Your task to perform on an android device: Look up the best rated bike on Walmart Image 0: 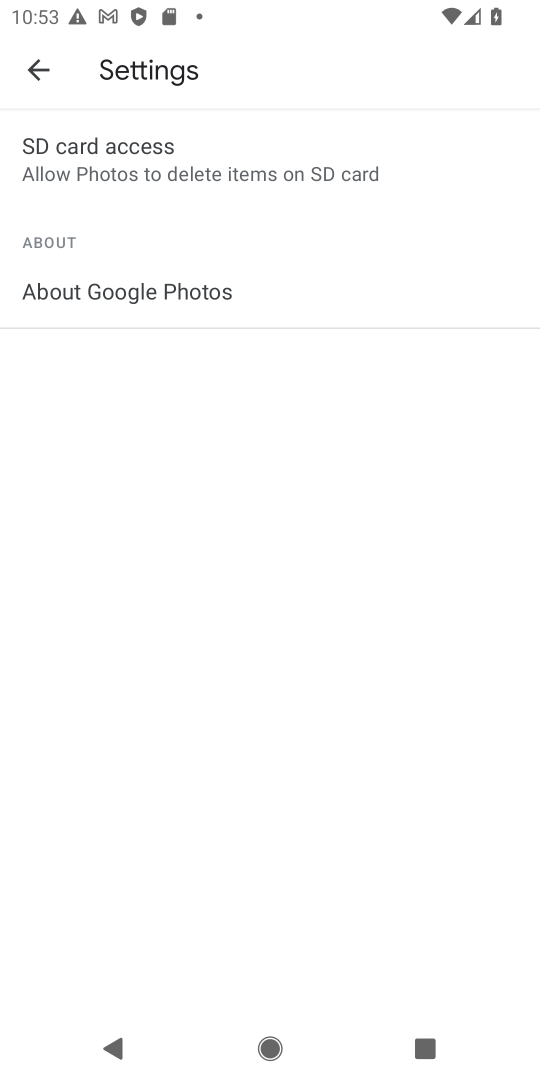
Step 0: press home button
Your task to perform on an android device: Look up the best rated bike on Walmart Image 1: 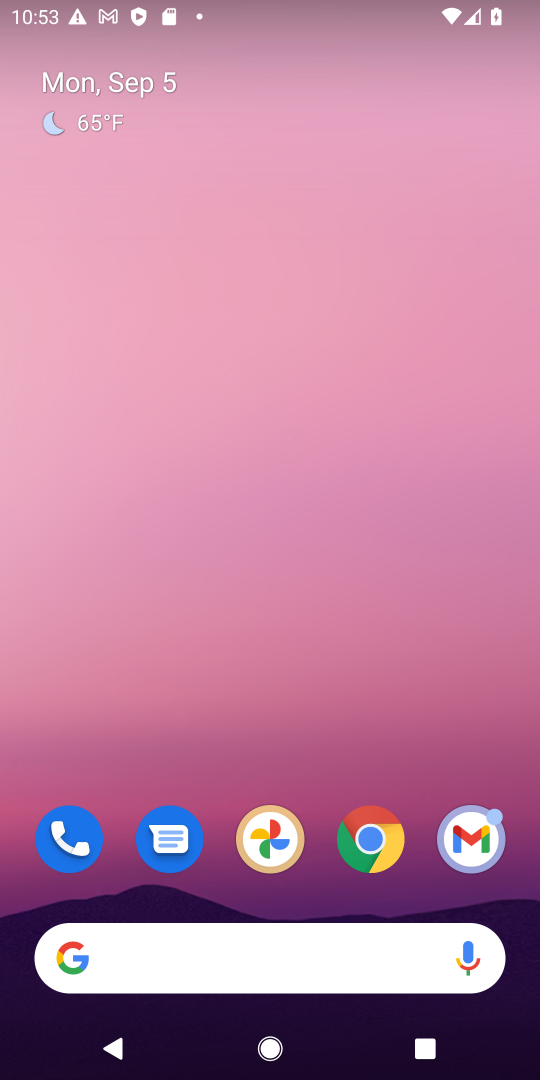
Step 1: drag from (236, 899) to (282, 420)
Your task to perform on an android device: Look up the best rated bike on Walmart Image 2: 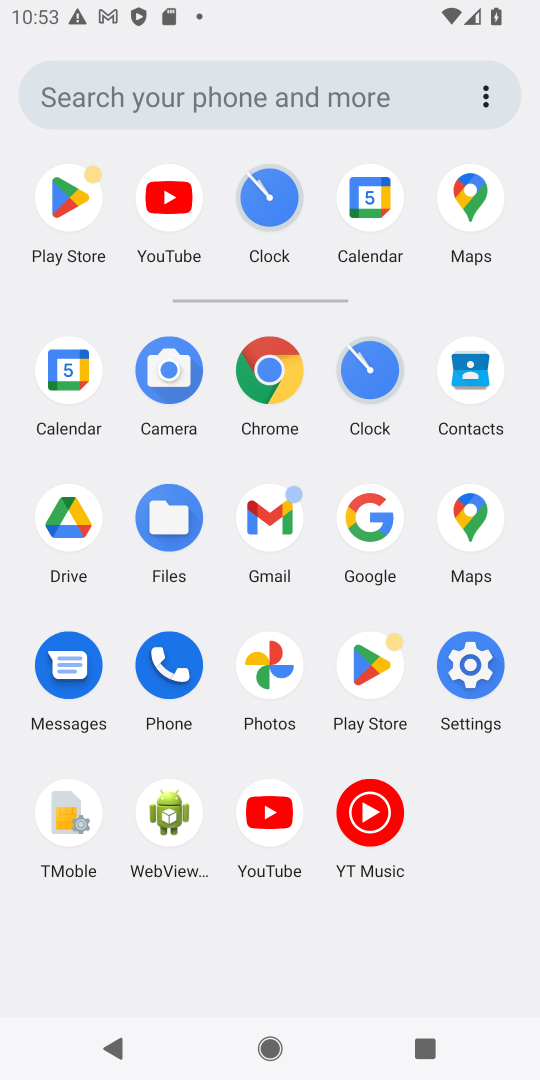
Step 2: click (379, 514)
Your task to perform on an android device: Look up the best rated bike on Walmart Image 3: 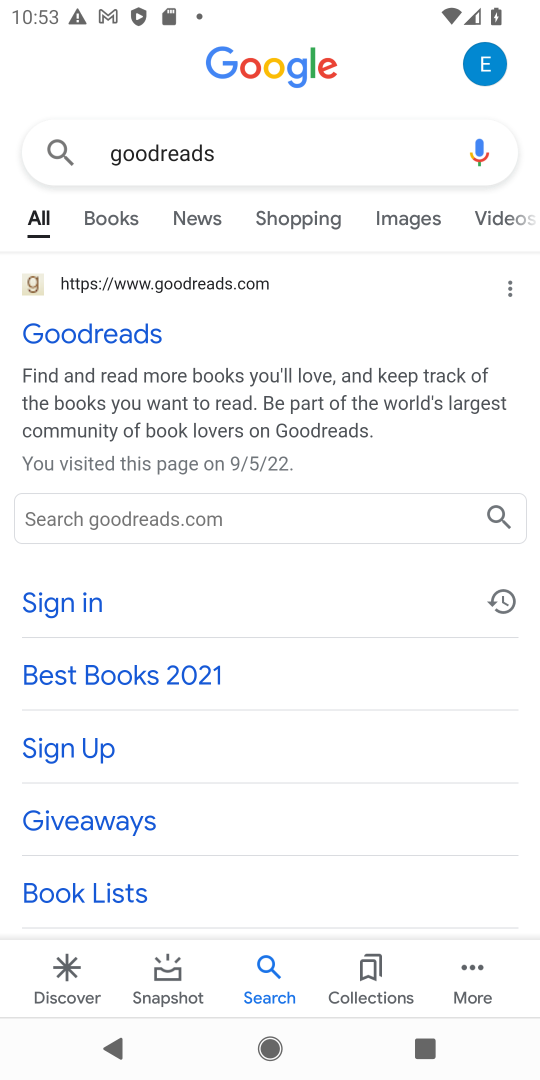
Step 3: click (156, 157)
Your task to perform on an android device: Look up the best rated bike on Walmart Image 4: 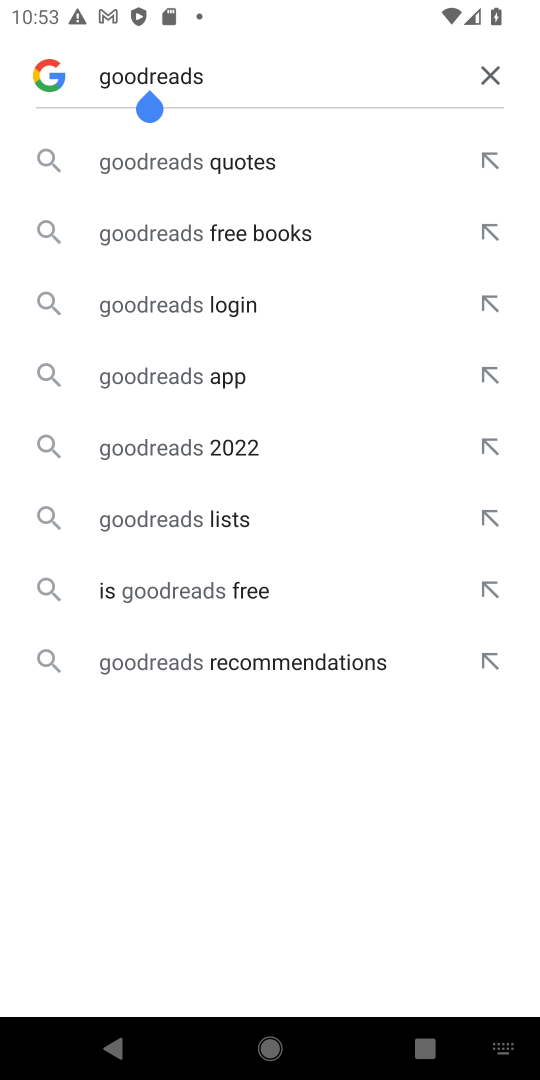
Step 4: click (495, 80)
Your task to perform on an android device: Look up the best rated bike on Walmart Image 5: 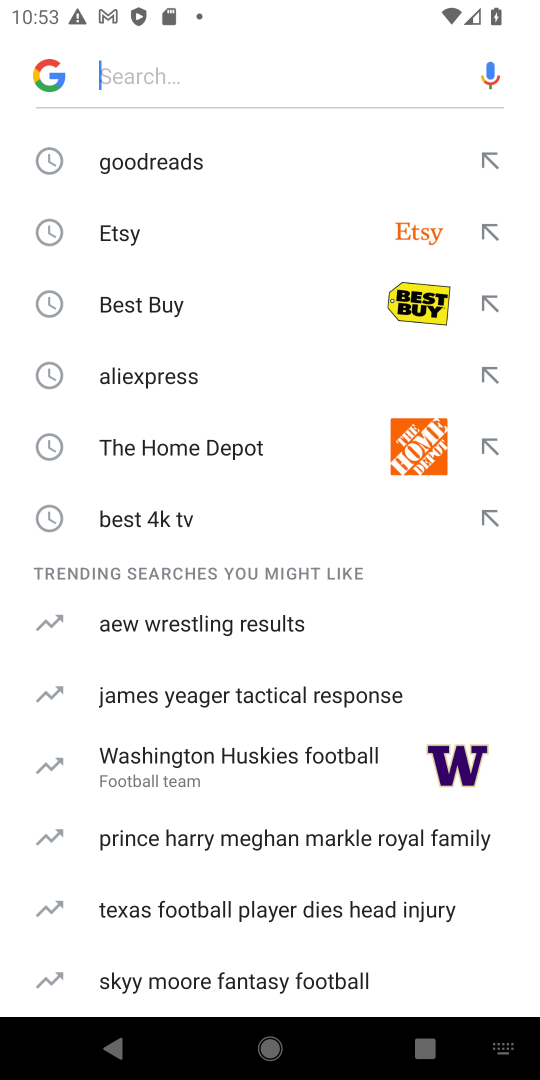
Step 5: type "Walmart"
Your task to perform on an android device: Look up the best rated bike on Walmart Image 6: 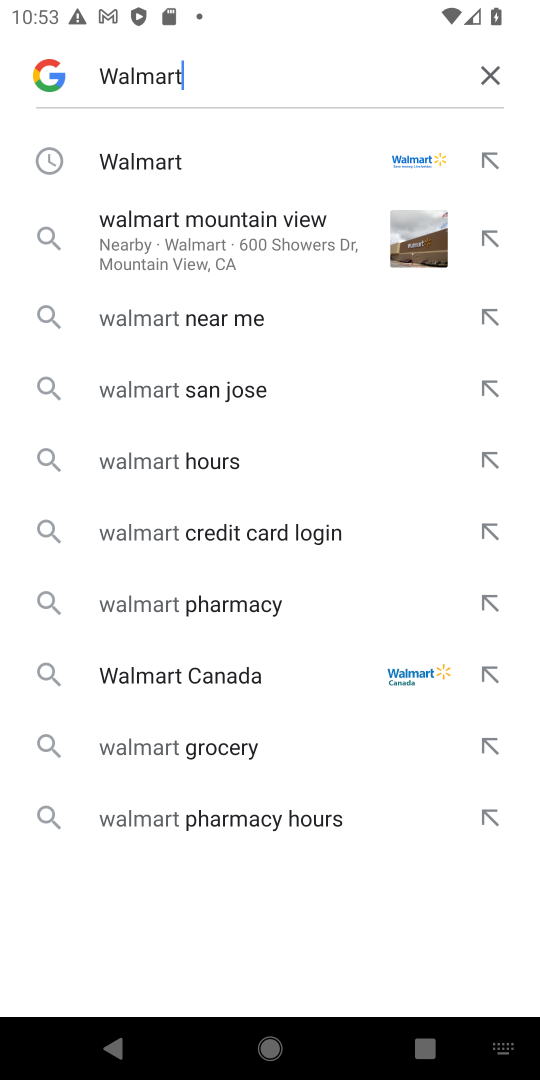
Step 6: click (414, 163)
Your task to perform on an android device: Look up the best rated bike on Walmart Image 7: 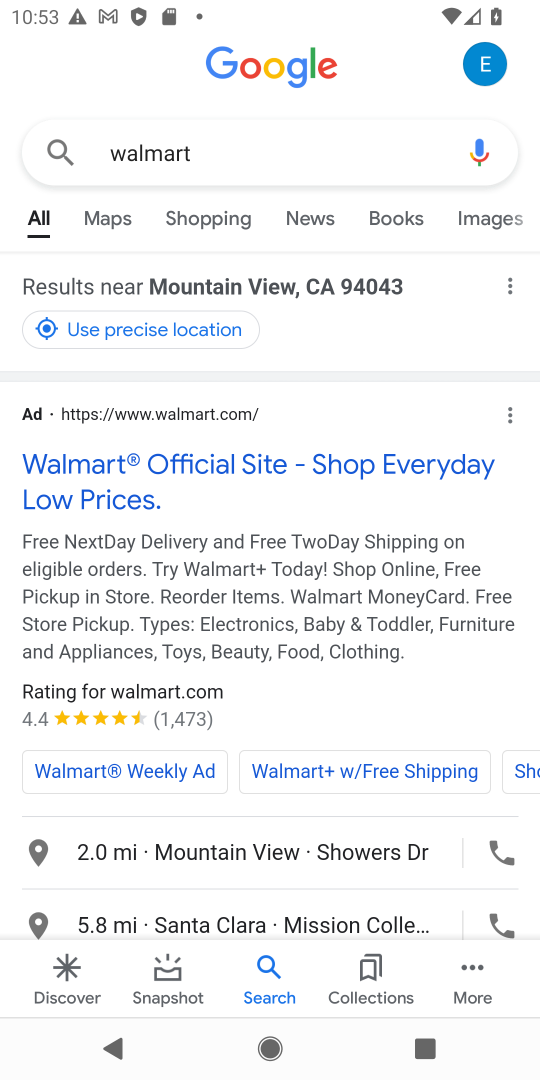
Step 7: click (117, 464)
Your task to perform on an android device: Look up the best rated bike on Walmart Image 8: 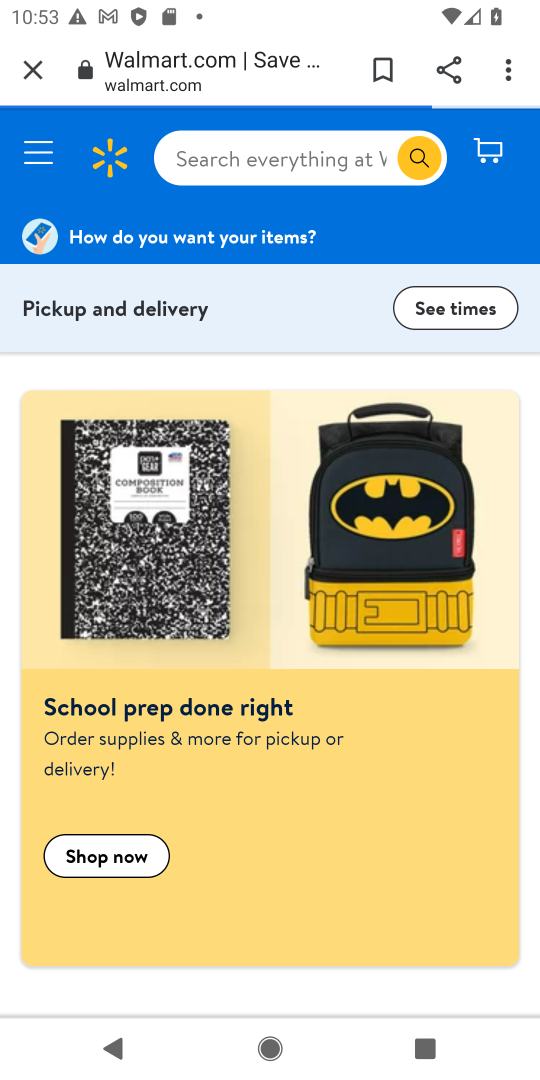
Step 8: click (218, 158)
Your task to perform on an android device: Look up the best rated bike on Walmart Image 9: 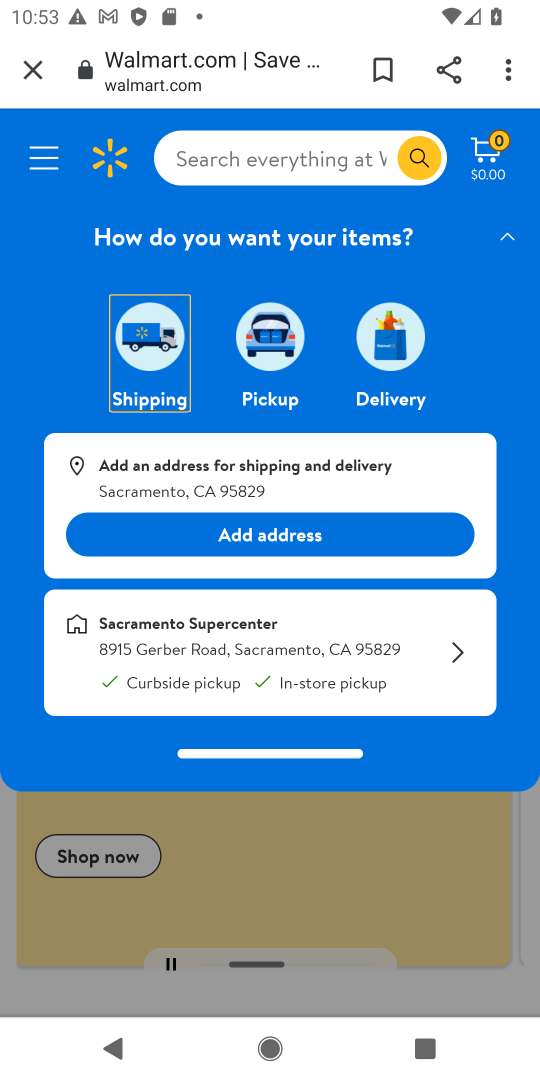
Step 9: click (329, 157)
Your task to perform on an android device: Look up the best rated bike on Walmart Image 10: 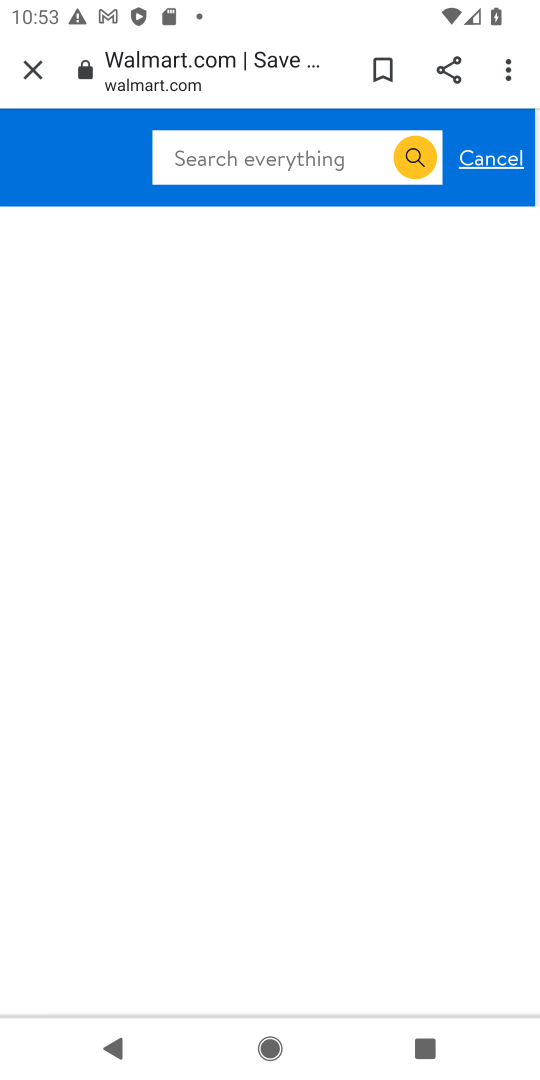
Step 10: click (406, 160)
Your task to perform on an android device: Look up the best rated bike on Walmart Image 11: 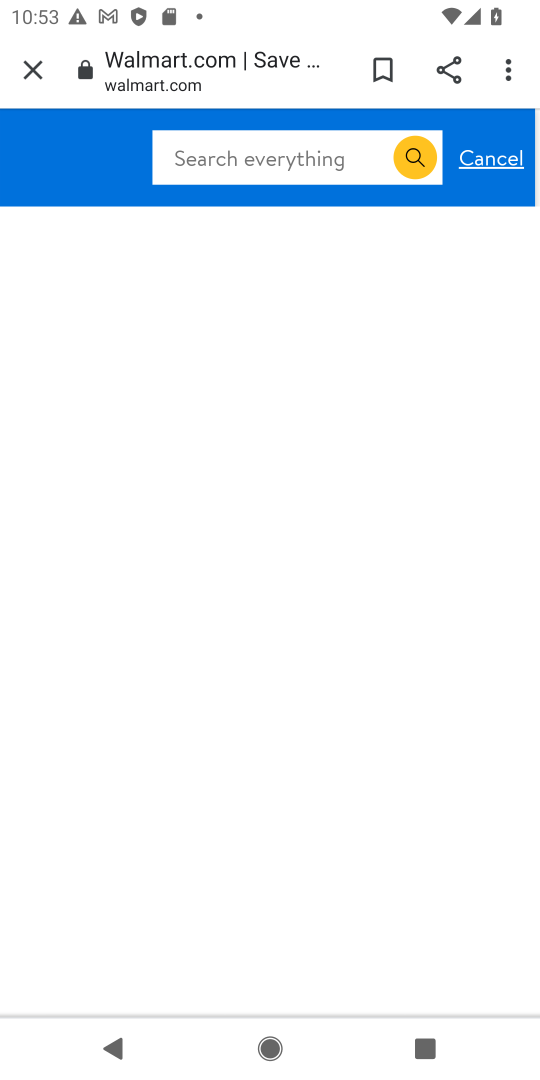
Step 11: click (296, 153)
Your task to perform on an android device: Look up the best rated bike on Walmart Image 12: 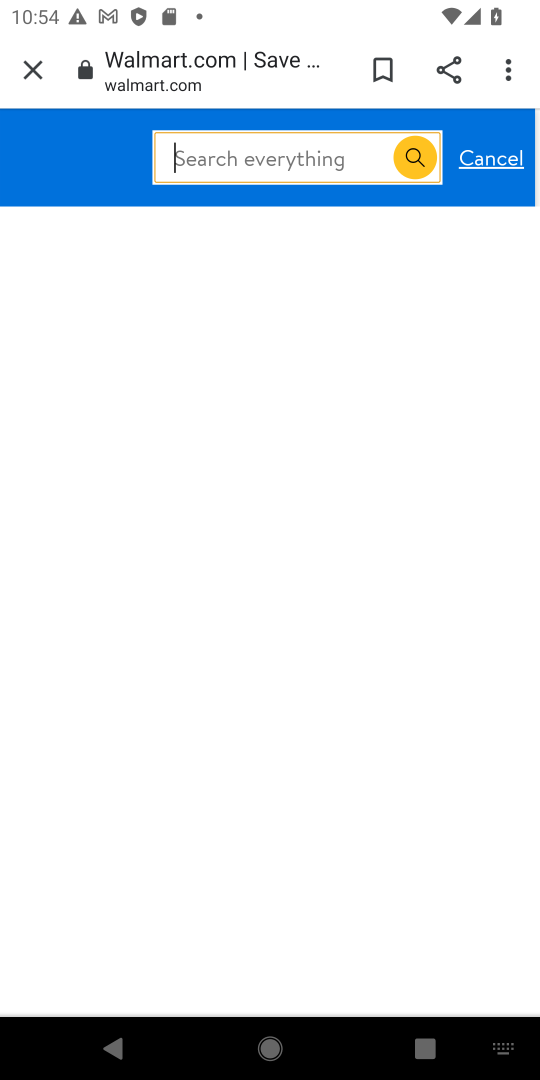
Step 12: type "best rated bike"
Your task to perform on an android device: Look up the best rated bike on Walmart Image 13: 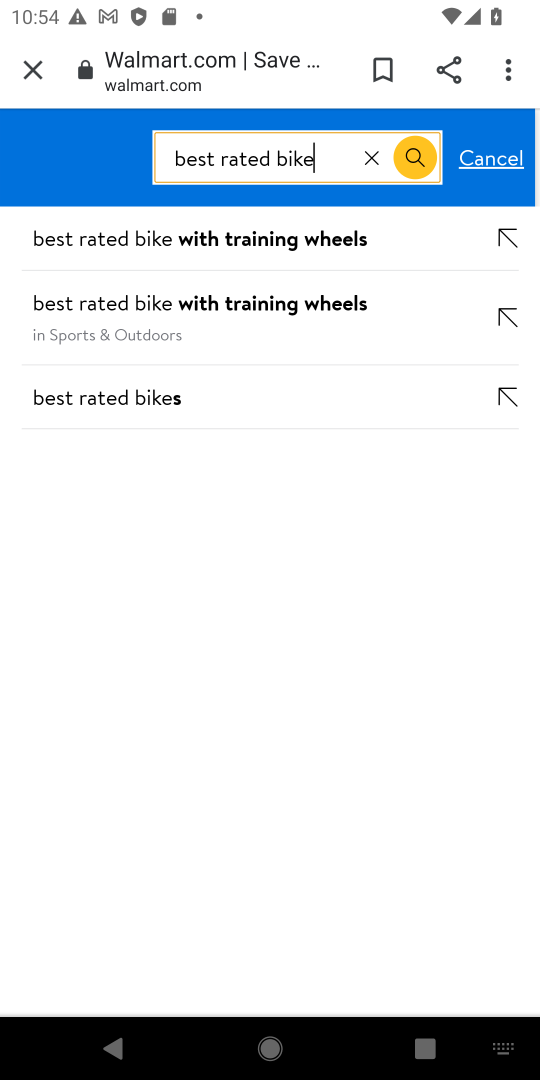
Step 13: click (173, 395)
Your task to perform on an android device: Look up the best rated bike on Walmart Image 14: 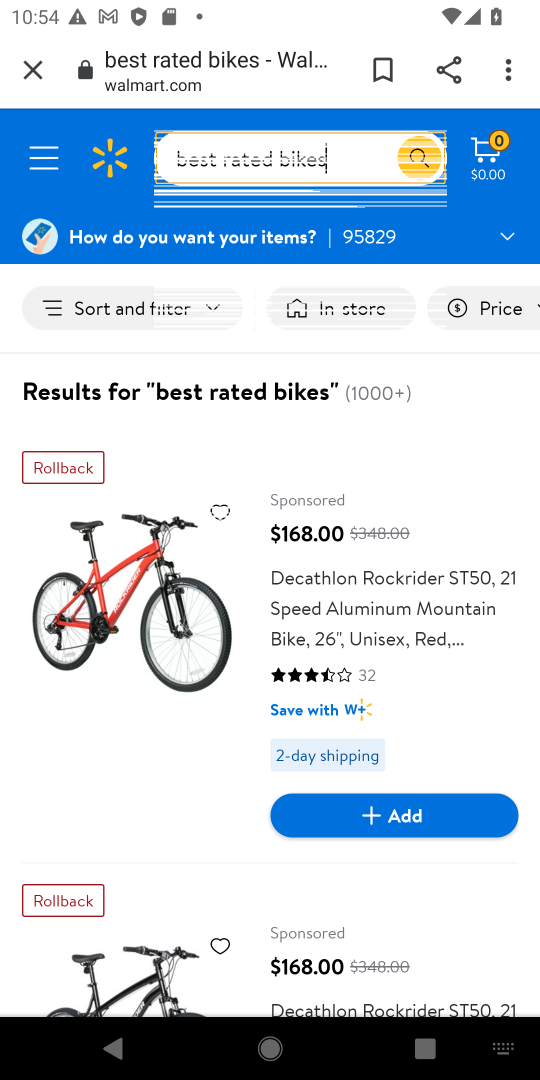
Step 14: drag from (268, 865) to (337, 366)
Your task to perform on an android device: Look up the best rated bike on Walmart Image 15: 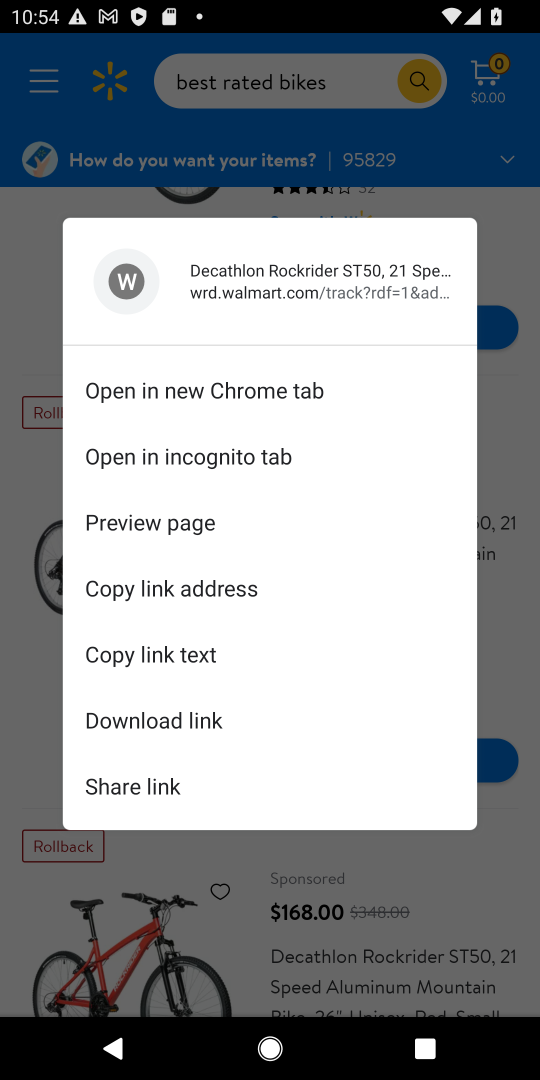
Step 15: click (509, 452)
Your task to perform on an android device: Look up the best rated bike on Walmart Image 16: 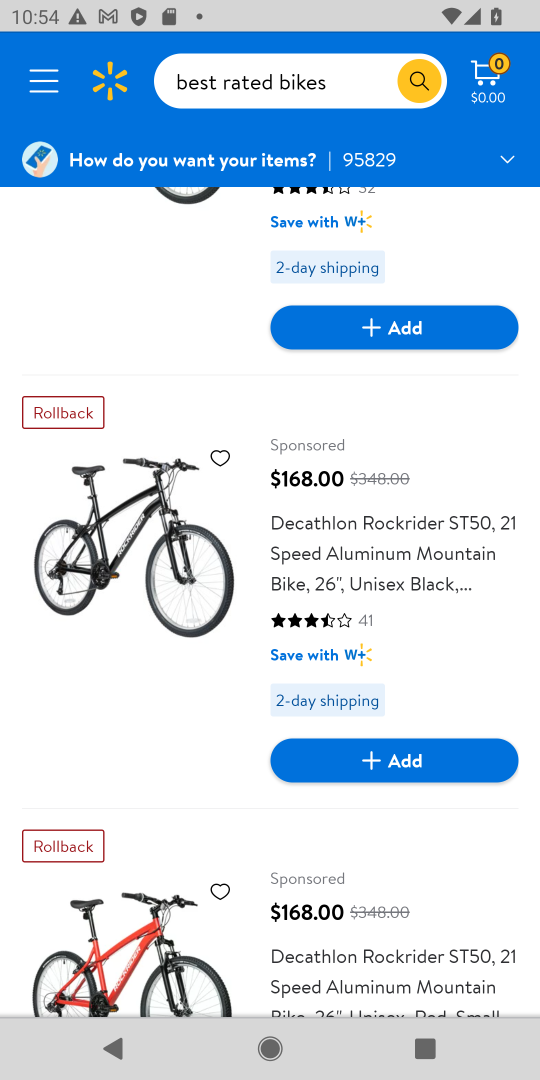
Step 16: task complete